Your task to perform on an android device: Open network settings Image 0: 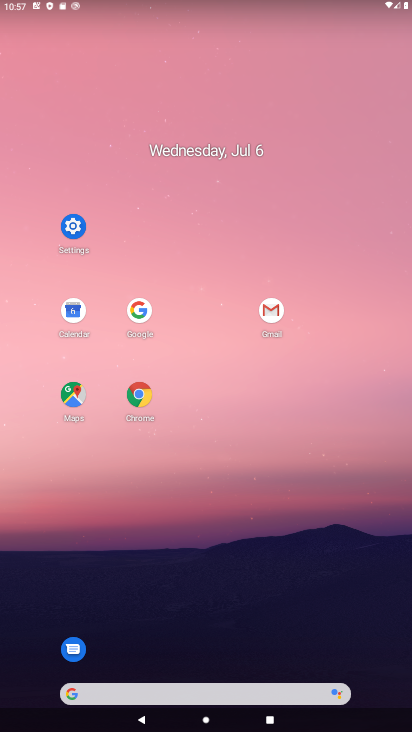
Step 0: click (73, 229)
Your task to perform on an android device: Open network settings Image 1: 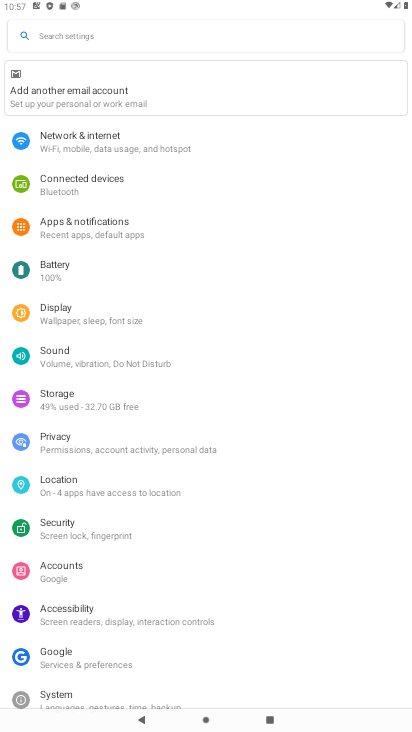
Step 1: click (174, 145)
Your task to perform on an android device: Open network settings Image 2: 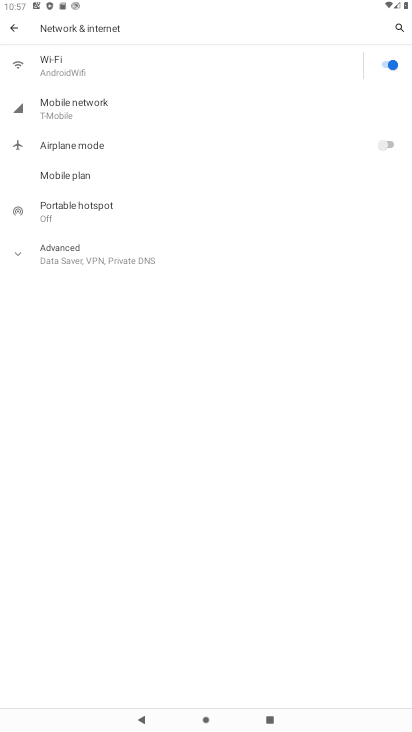
Step 2: task complete